Your task to perform on an android device: Show me popular videos on Youtube Image 0: 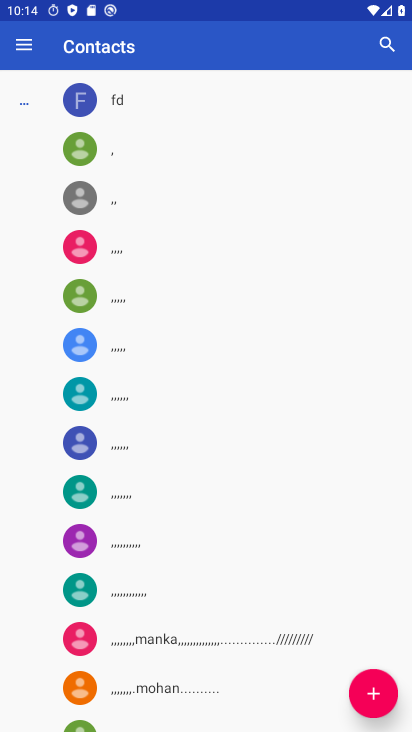
Step 0: press home button
Your task to perform on an android device: Show me popular videos on Youtube Image 1: 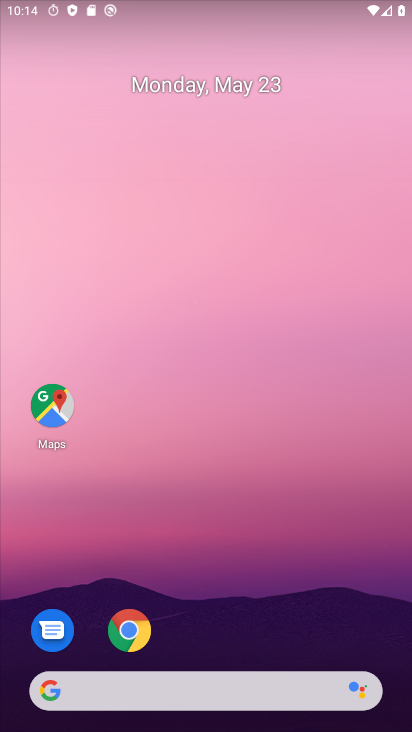
Step 1: drag from (244, 647) to (210, 27)
Your task to perform on an android device: Show me popular videos on Youtube Image 2: 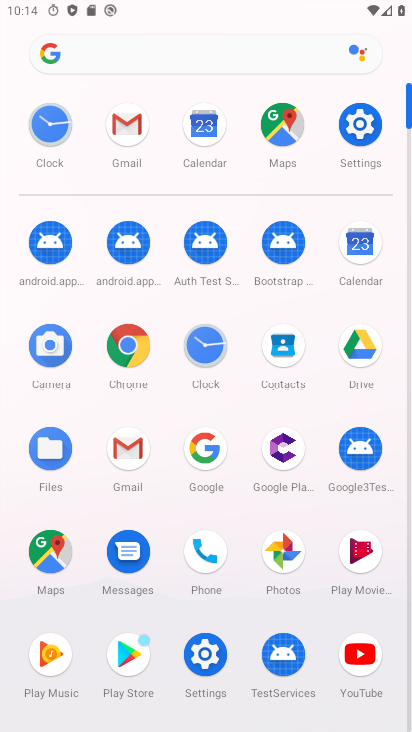
Step 2: click (357, 659)
Your task to perform on an android device: Show me popular videos on Youtube Image 3: 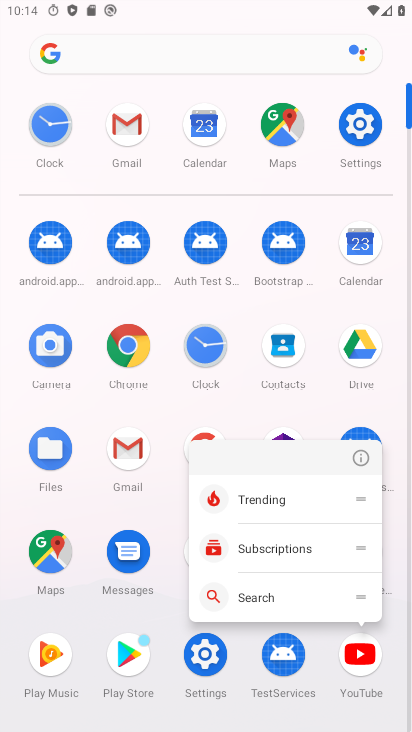
Step 3: click (357, 659)
Your task to perform on an android device: Show me popular videos on Youtube Image 4: 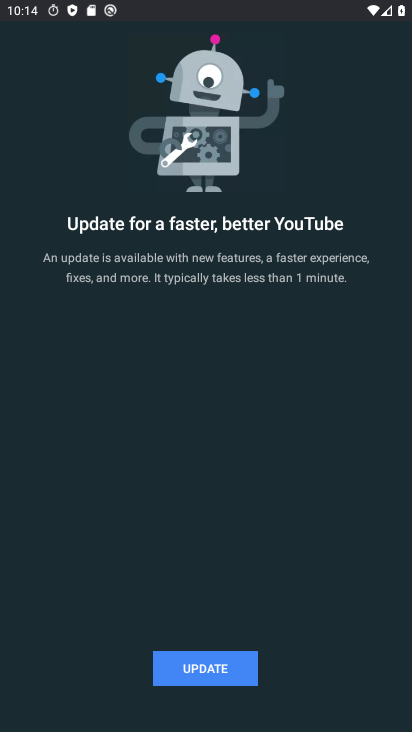
Step 4: click (195, 671)
Your task to perform on an android device: Show me popular videos on Youtube Image 5: 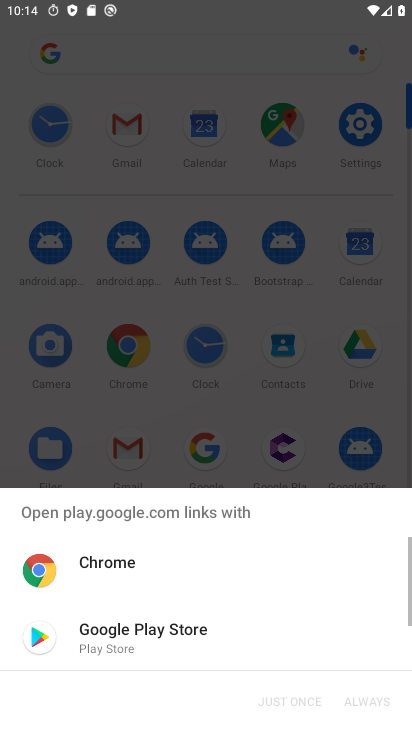
Step 5: click (136, 639)
Your task to perform on an android device: Show me popular videos on Youtube Image 6: 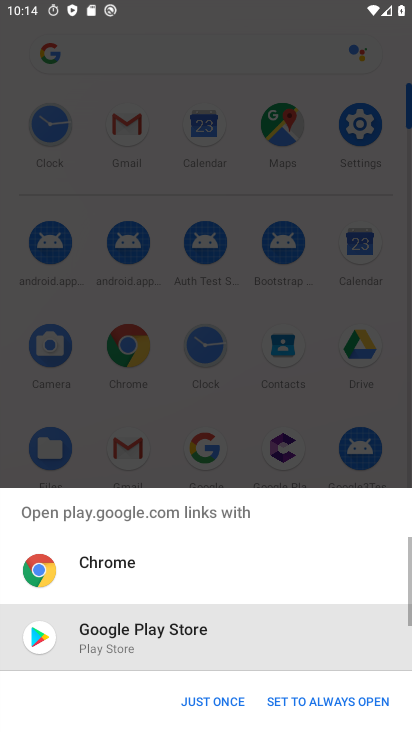
Step 6: click (195, 704)
Your task to perform on an android device: Show me popular videos on Youtube Image 7: 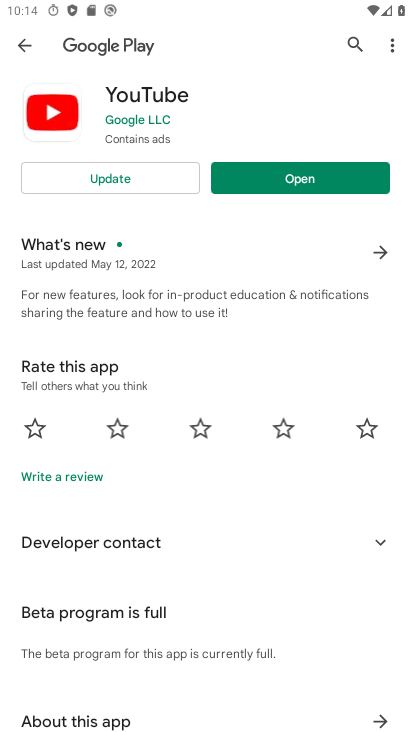
Step 7: click (103, 178)
Your task to perform on an android device: Show me popular videos on Youtube Image 8: 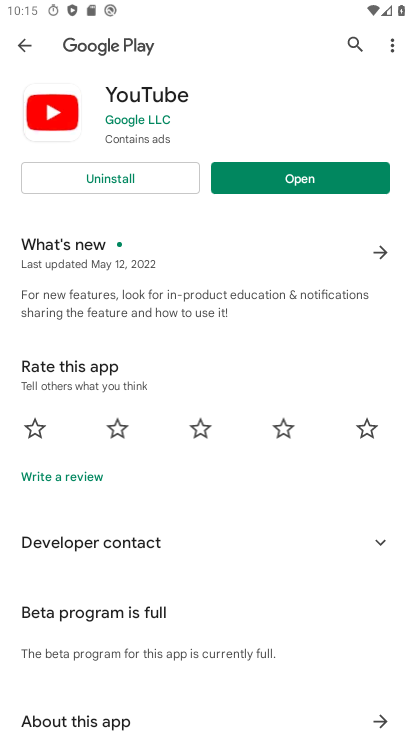
Step 8: click (284, 181)
Your task to perform on an android device: Show me popular videos on Youtube Image 9: 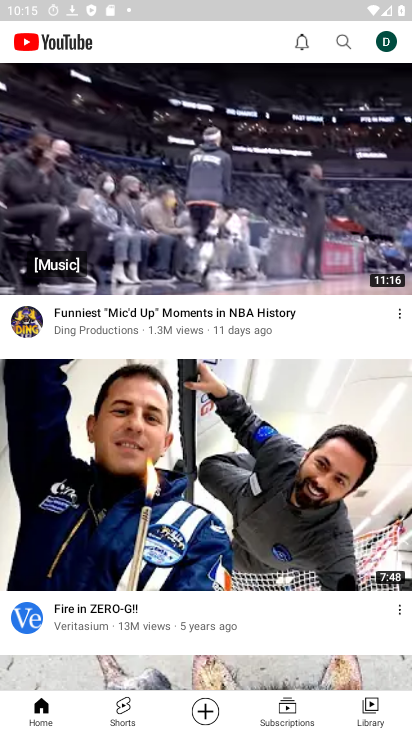
Step 9: click (41, 709)
Your task to perform on an android device: Show me popular videos on Youtube Image 10: 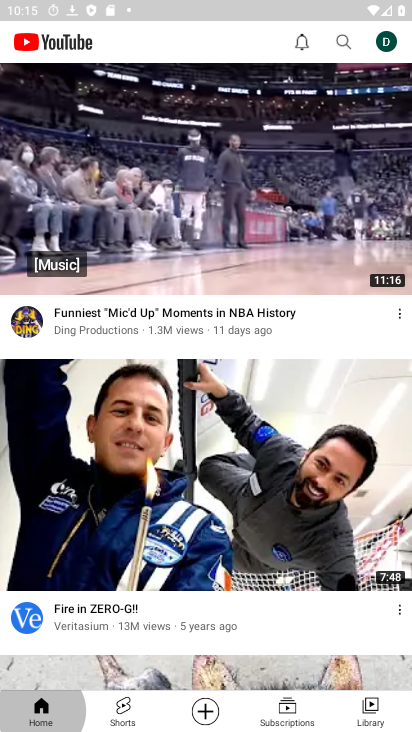
Step 10: task complete